Your task to perform on an android device: set the timer Image 0: 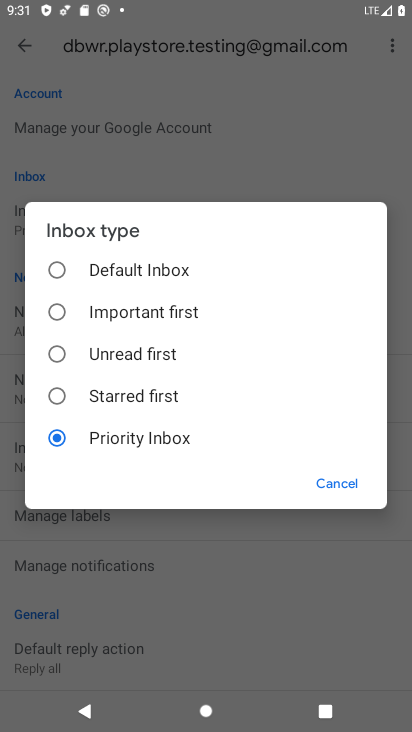
Step 0: press home button
Your task to perform on an android device: set the timer Image 1: 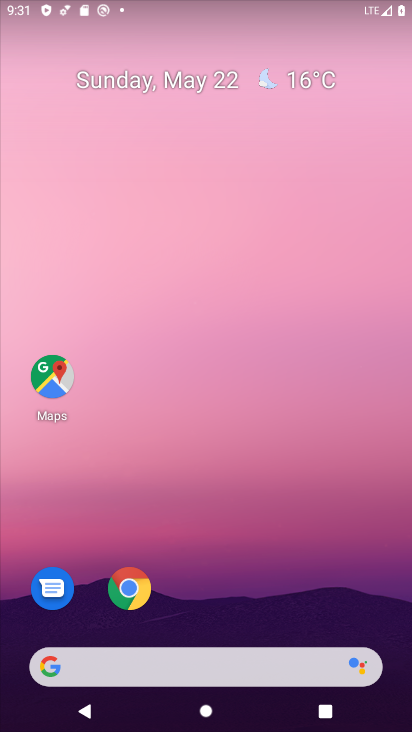
Step 1: drag from (221, 592) to (192, 183)
Your task to perform on an android device: set the timer Image 2: 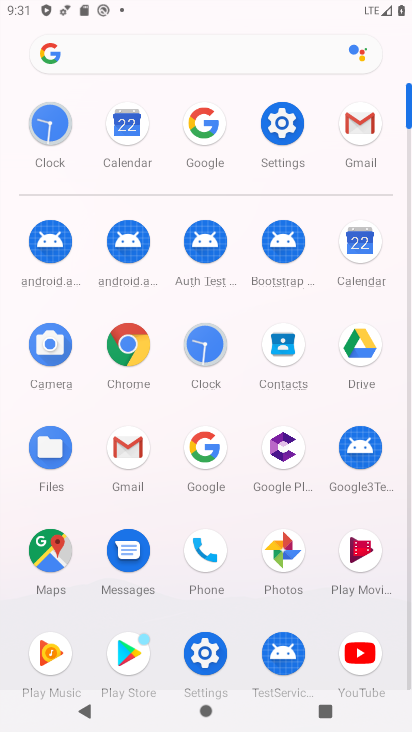
Step 2: click (49, 142)
Your task to perform on an android device: set the timer Image 3: 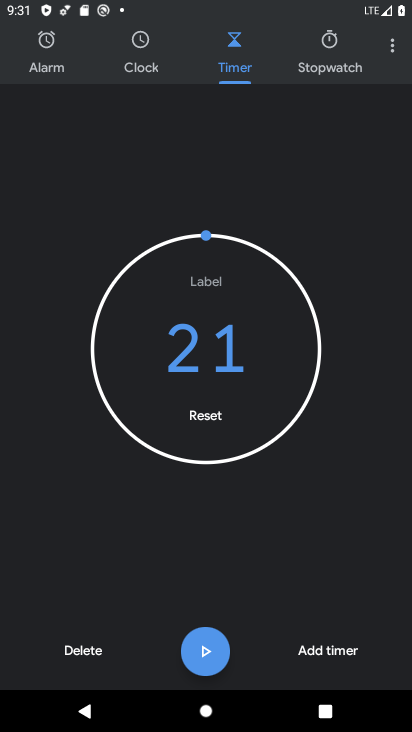
Step 3: click (212, 637)
Your task to perform on an android device: set the timer Image 4: 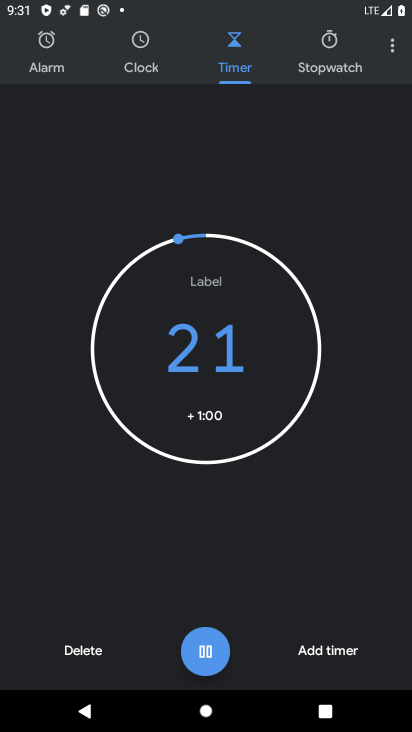
Step 4: task complete